Your task to perform on an android device: visit the assistant section in the google photos Image 0: 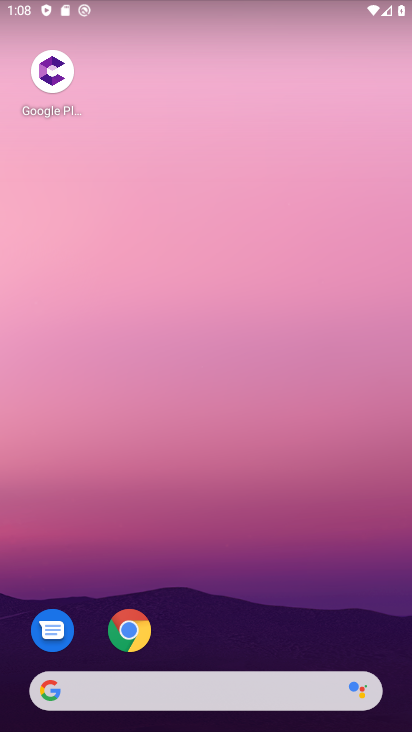
Step 0: drag from (230, 605) to (220, 63)
Your task to perform on an android device: visit the assistant section in the google photos Image 1: 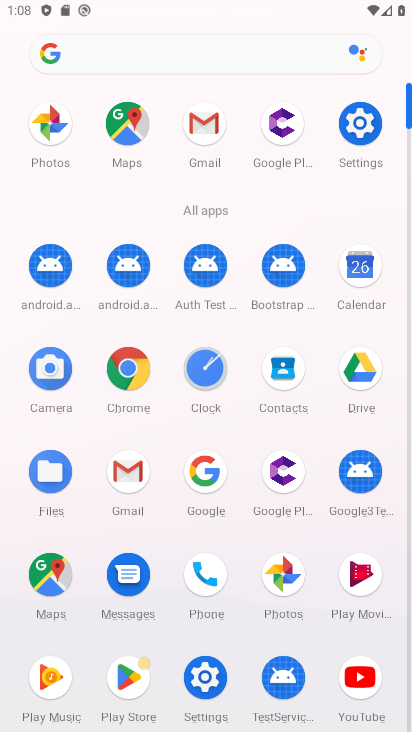
Step 1: click (272, 572)
Your task to perform on an android device: visit the assistant section in the google photos Image 2: 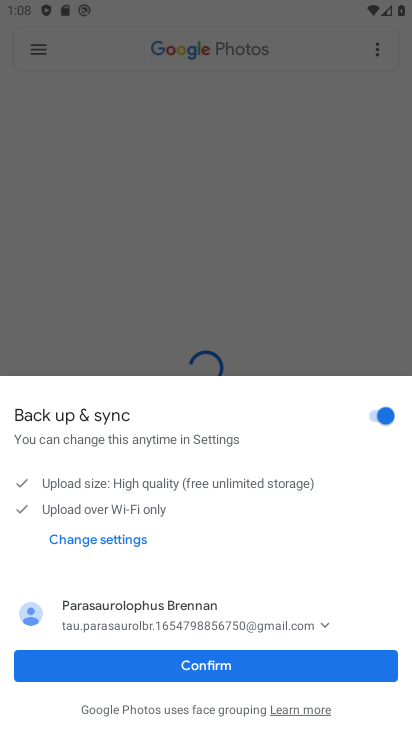
Step 2: click (271, 666)
Your task to perform on an android device: visit the assistant section in the google photos Image 3: 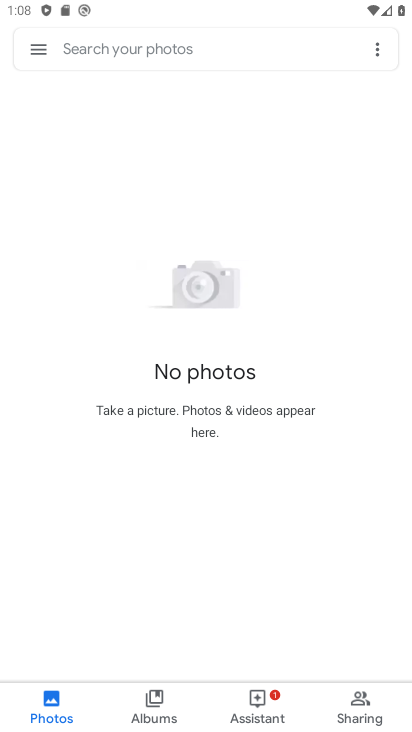
Step 3: click (263, 695)
Your task to perform on an android device: visit the assistant section in the google photos Image 4: 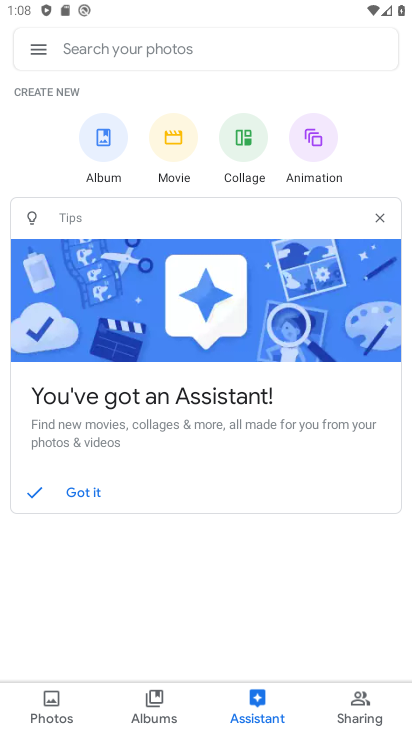
Step 4: task complete